Your task to perform on an android device: find which apps use the phone's location Image 0: 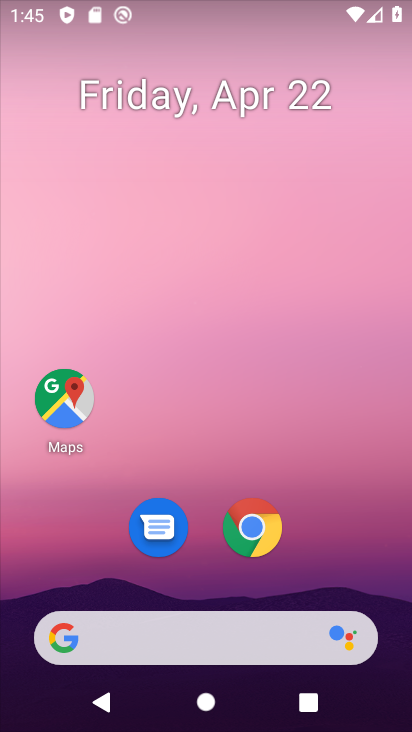
Step 0: drag from (392, 614) to (231, 75)
Your task to perform on an android device: find which apps use the phone's location Image 1: 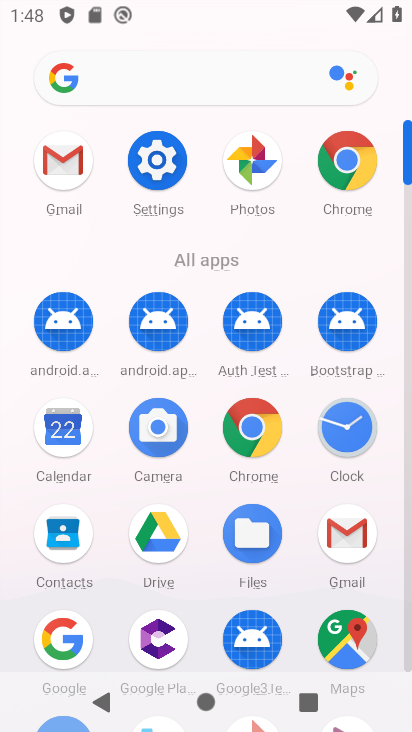
Step 1: click (140, 147)
Your task to perform on an android device: find which apps use the phone's location Image 2: 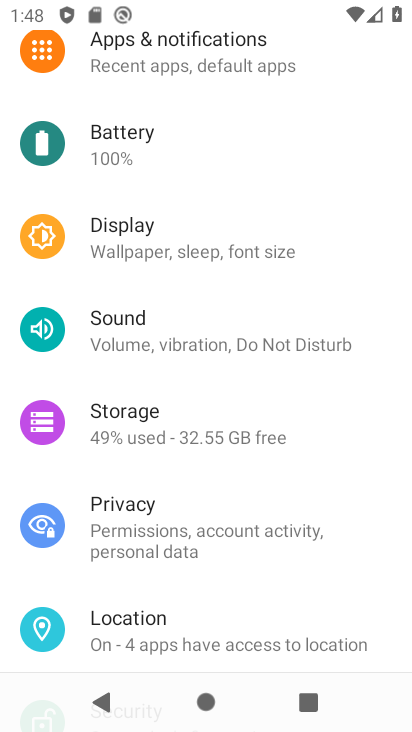
Step 2: click (184, 619)
Your task to perform on an android device: find which apps use the phone's location Image 3: 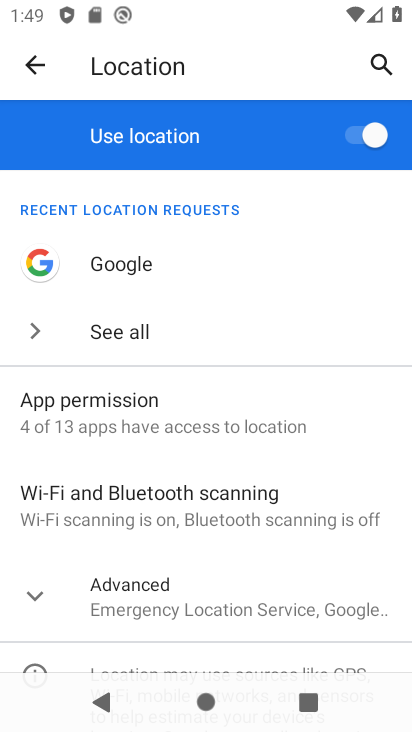
Step 3: drag from (142, 612) to (202, 298)
Your task to perform on an android device: find which apps use the phone's location Image 4: 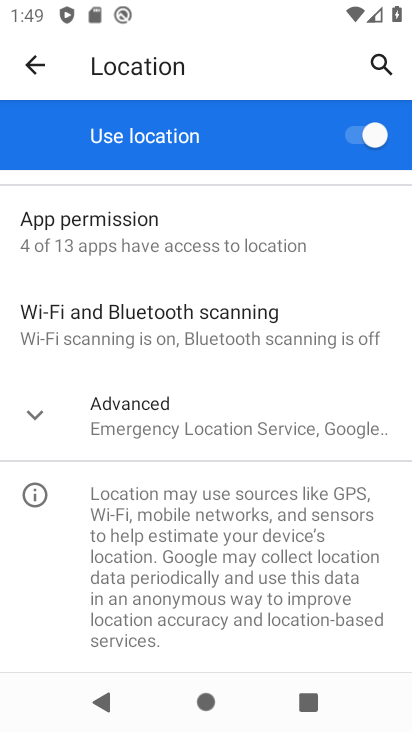
Step 4: click (143, 238)
Your task to perform on an android device: find which apps use the phone's location Image 5: 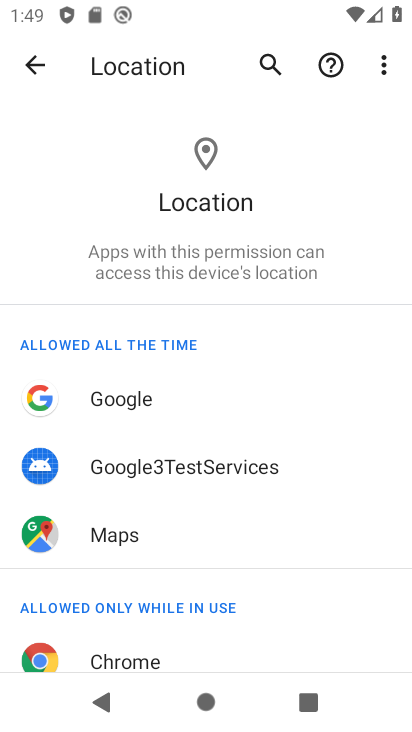
Step 5: drag from (191, 644) to (248, 191)
Your task to perform on an android device: find which apps use the phone's location Image 6: 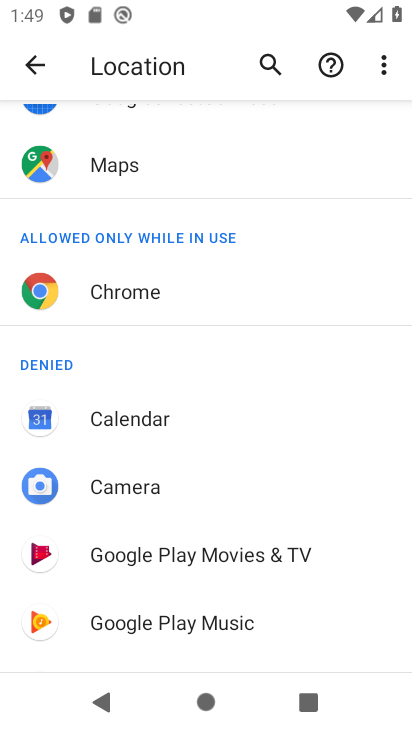
Step 6: drag from (145, 526) to (189, 189)
Your task to perform on an android device: find which apps use the phone's location Image 7: 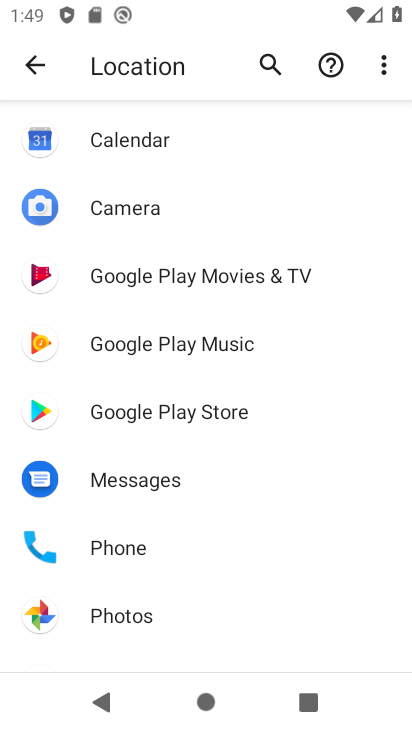
Step 7: click (108, 556)
Your task to perform on an android device: find which apps use the phone's location Image 8: 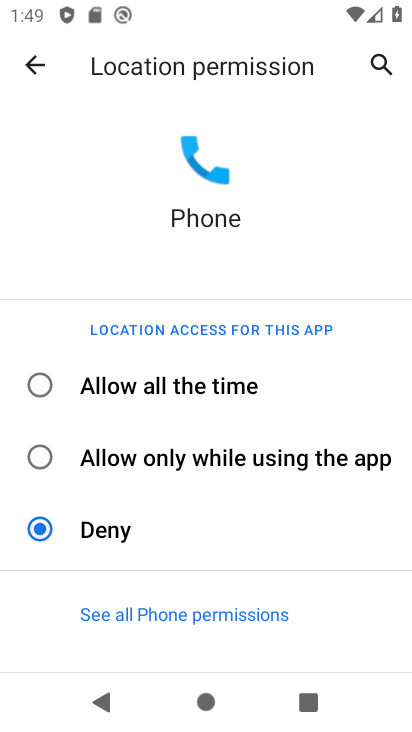
Step 8: click (141, 390)
Your task to perform on an android device: find which apps use the phone's location Image 9: 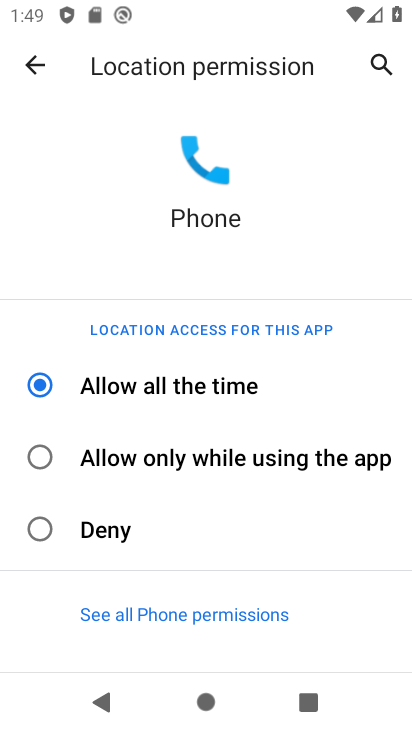
Step 9: task complete